Your task to perform on an android device: check android version Image 0: 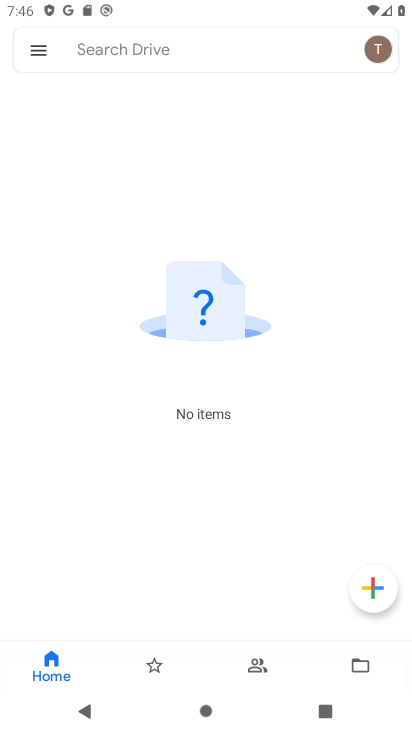
Step 0: press home button
Your task to perform on an android device: check android version Image 1: 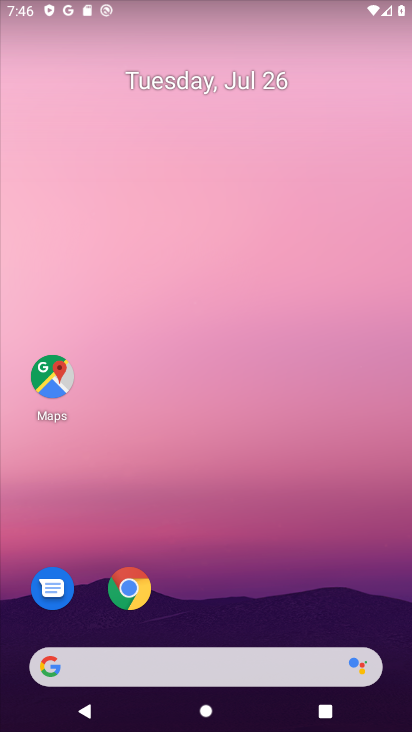
Step 1: drag from (189, 646) to (333, 108)
Your task to perform on an android device: check android version Image 2: 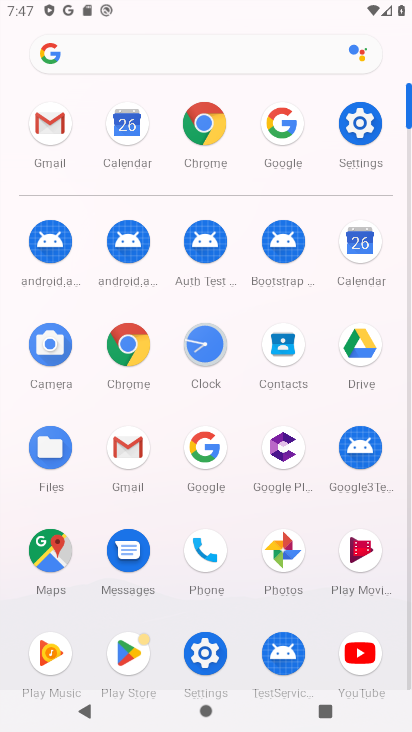
Step 2: click (363, 131)
Your task to perform on an android device: check android version Image 3: 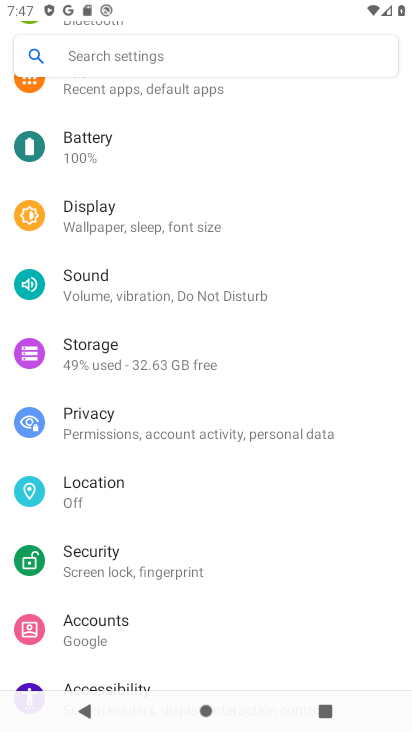
Step 3: drag from (177, 589) to (228, 245)
Your task to perform on an android device: check android version Image 4: 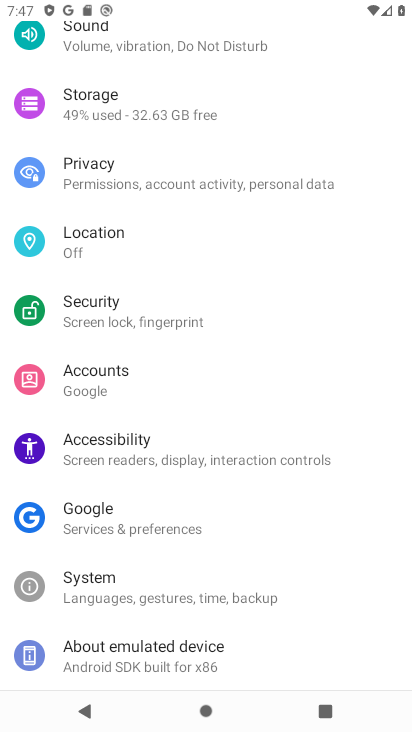
Step 4: drag from (161, 568) to (193, 191)
Your task to perform on an android device: check android version Image 5: 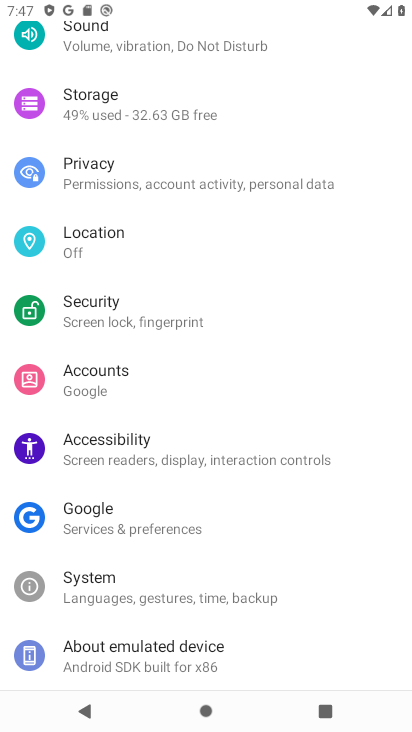
Step 5: click (145, 637)
Your task to perform on an android device: check android version Image 6: 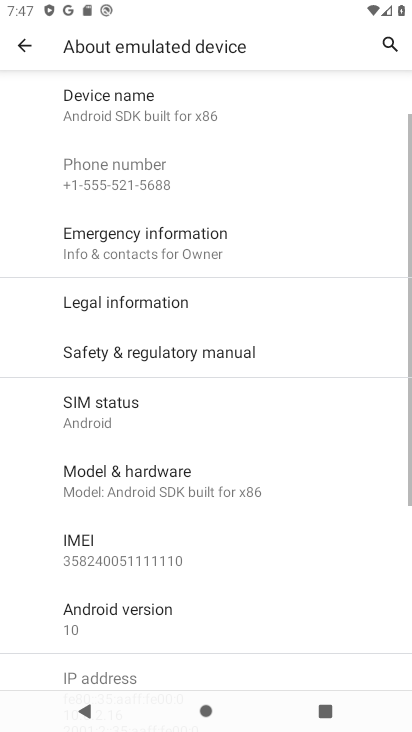
Step 6: click (157, 614)
Your task to perform on an android device: check android version Image 7: 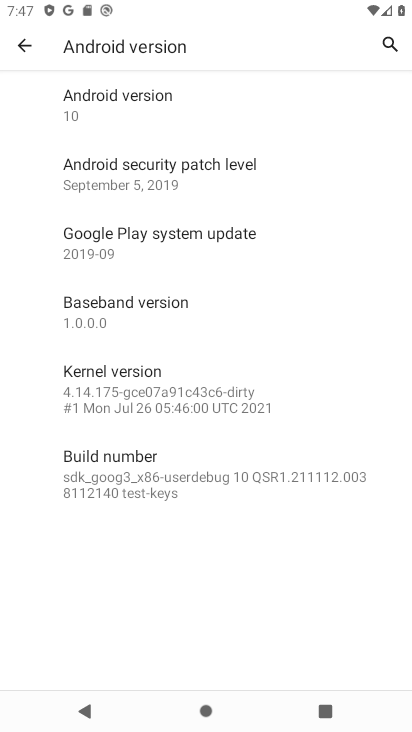
Step 7: click (217, 109)
Your task to perform on an android device: check android version Image 8: 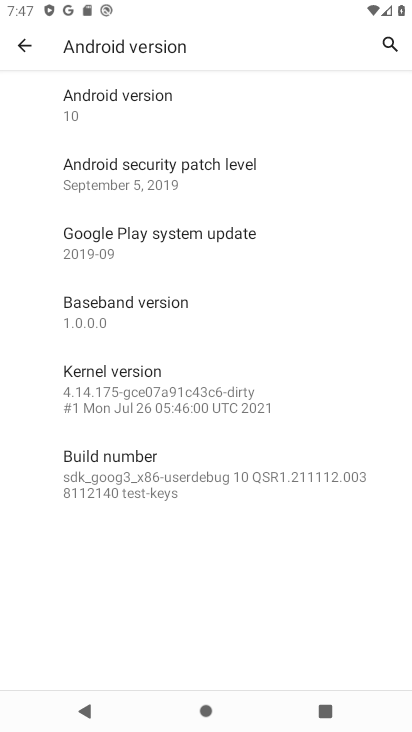
Step 8: click (217, 109)
Your task to perform on an android device: check android version Image 9: 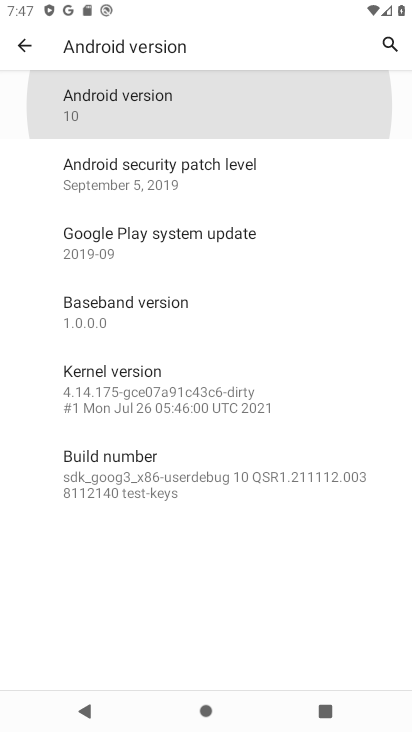
Step 9: click (217, 109)
Your task to perform on an android device: check android version Image 10: 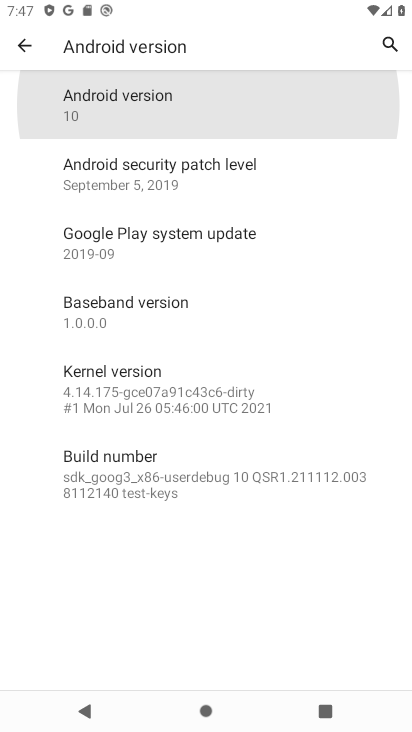
Step 10: click (217, 109)
Your task to perform on an android device: check android version Image 11: 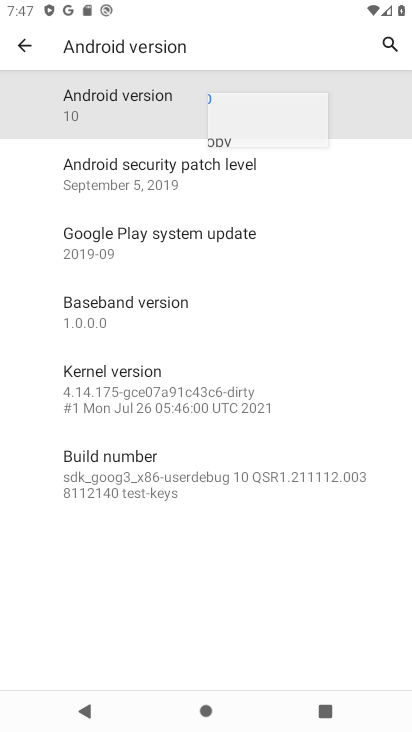
Step 11: click (217, 109)
Your task to perform on an android device: check android version Image 12: 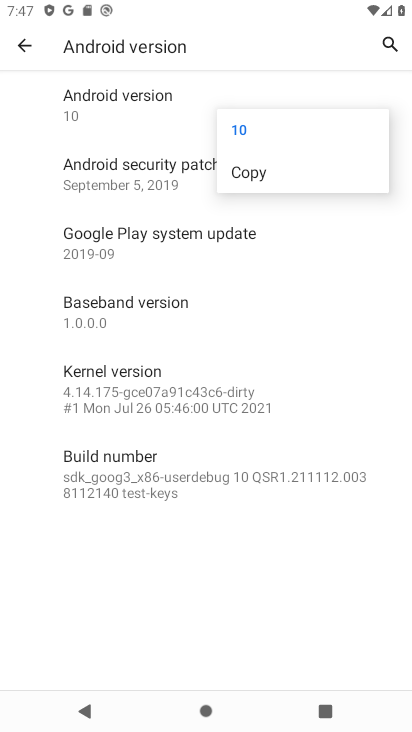
Step 12: click (217, 109)
Your task to perform on an android device: check android version Image 13: 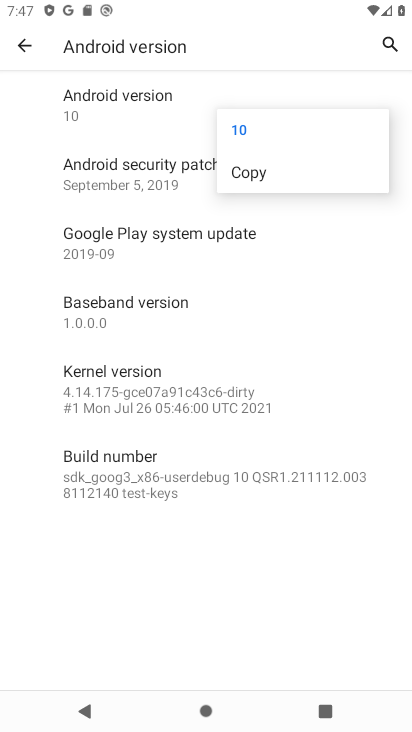
Step 13: click (217, 109)
Your task to perform on an android device: check android version Image 14: 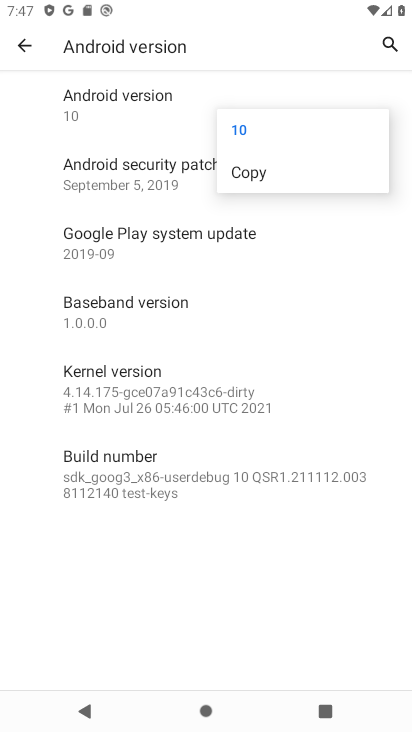
Step 14: task complete